Your task to perform on an android device: set the stopwatch Image 0: 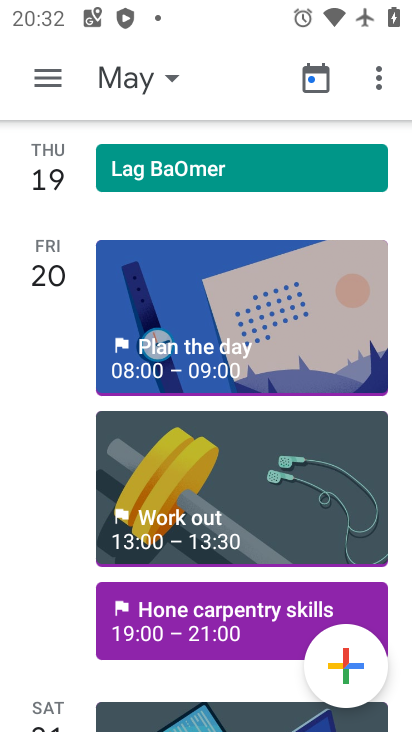
Step 0: press home button
Your task to perform on an android device: set the stopwatch Image 1: 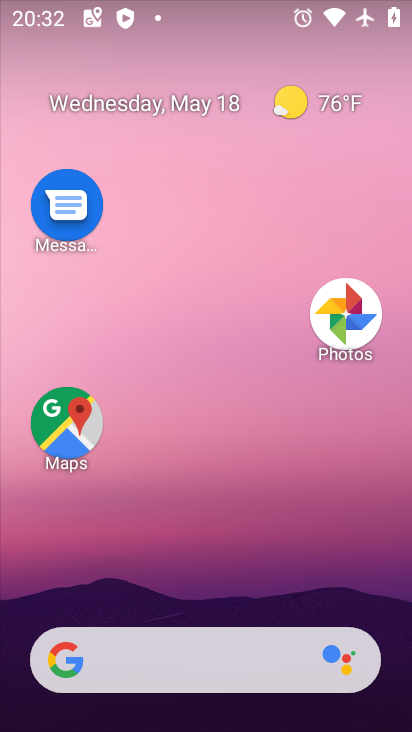
Step 1: drag from (198, 629) to (153, 53)
Your task to perform on an android device: set the stopwatch Image 2: 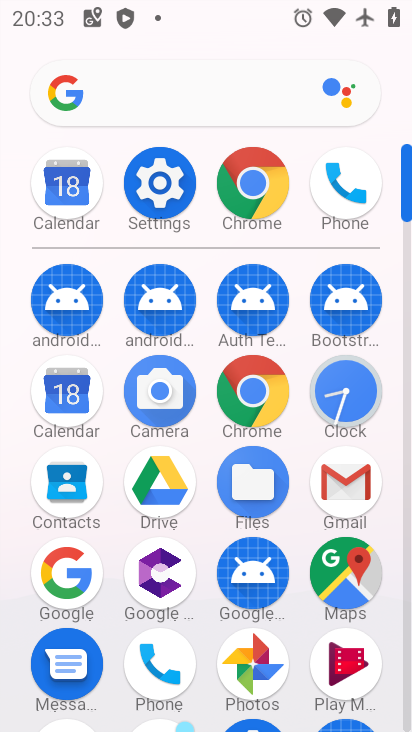
Step 2: click (336, 397)
Your task to perform on an android device: set the stopwatch Image 3: 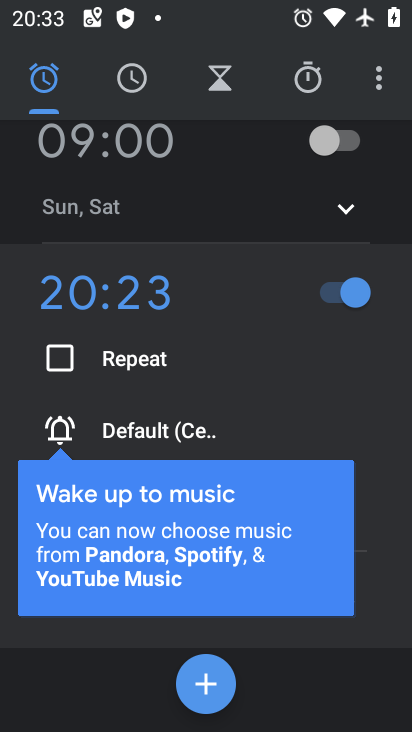
Step 3: click (295, 74)
Your task to perform on an android device: set the stopwatch Image 4: 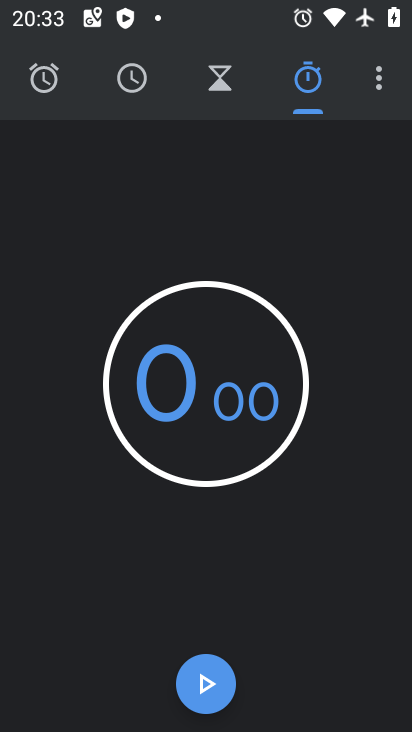
Step 4: task complete